Your task to perform on an android device: Open Wikipedia Image 0: 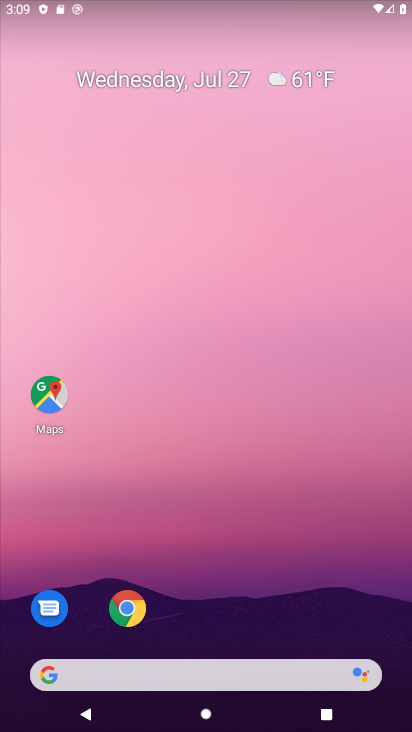
Step 0: click (122, 614)
Your task to perform on an android device: Open Wikipedia Image 1: 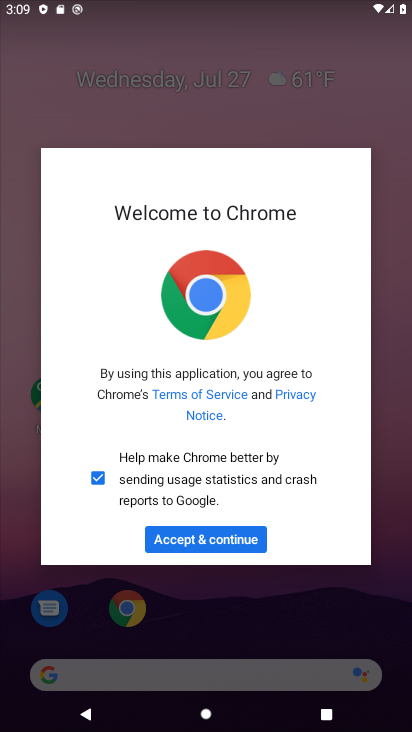
Step 1: click (244, 533)
Your task to perform on an android device: Open Wikipedia Image 2: 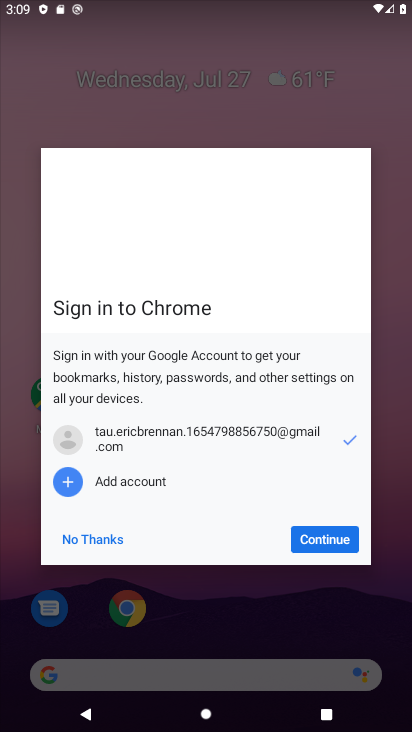
Step 2: click (354, 538)
Your task to perform on an android device: Open Wikipedia Image 3: 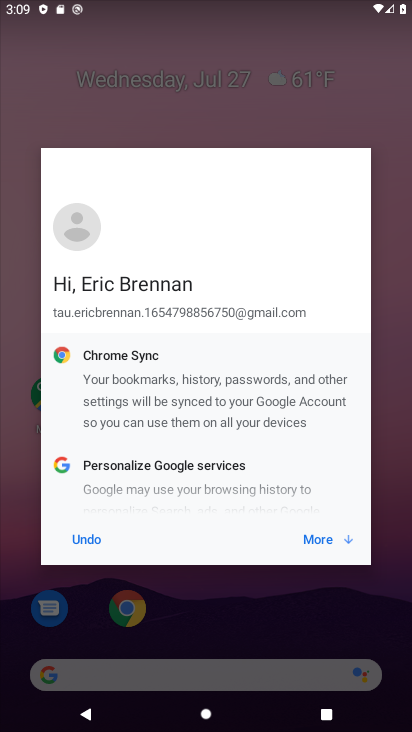
Step 3: click (313, 536)
Your task to perform on an android device: Open Wikipedia Image 4: 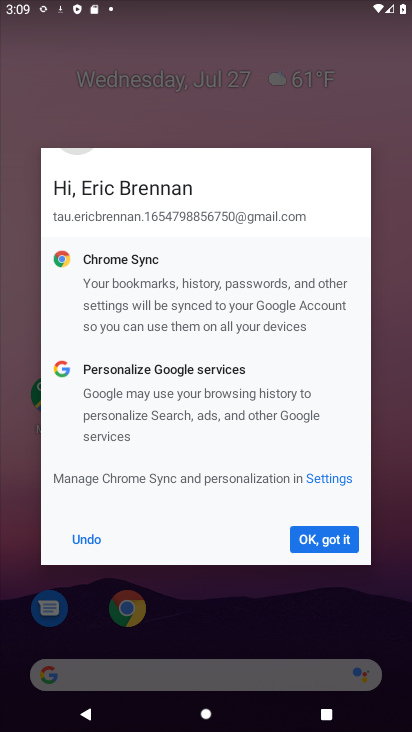
Step 4: click (313, 536)
Your task to perform on an android device: Open Wikipedia Image 5: 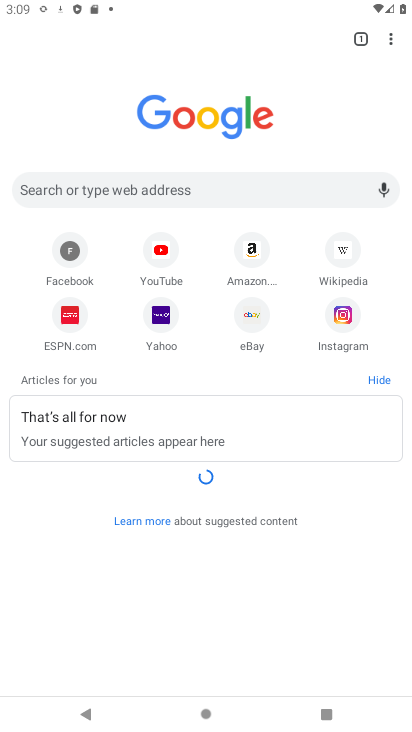
Step 5: click (339, 255)
Your task to perform on an android device: Open Wikipedia Image 6: 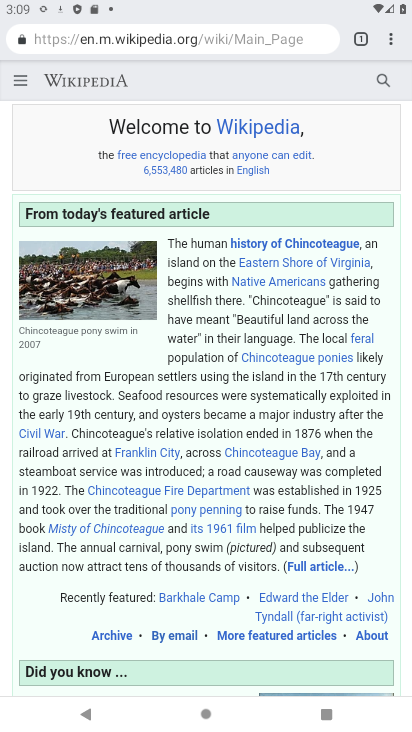
Step 6: task complete